Your task to perform on an android device: Go to privacy settings Image 0: 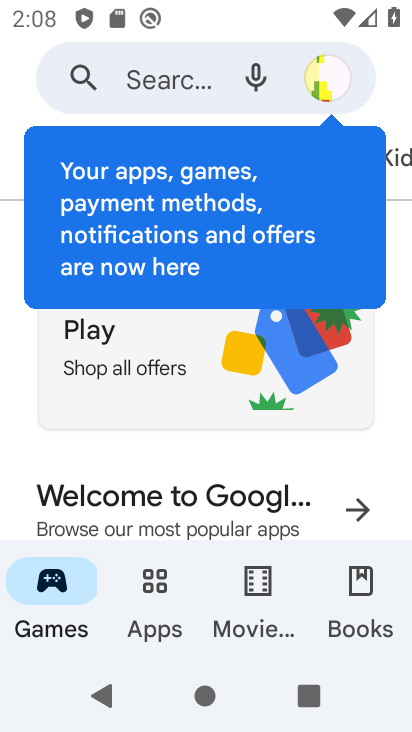
Step 0: press back button
Your task to perform on an android device: Go to privacy settings Image 1: 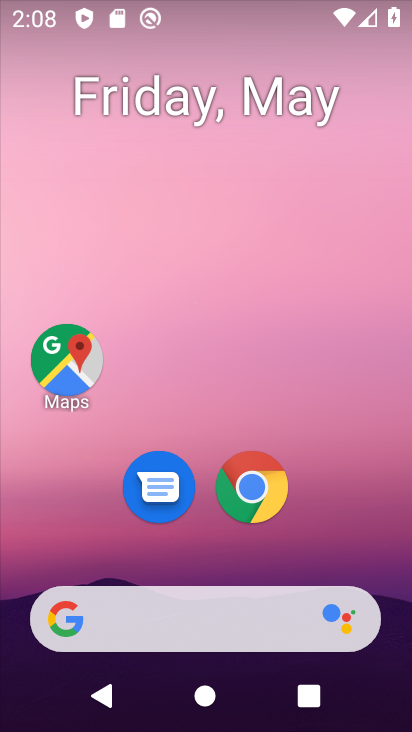
Step 1: drag from (176, 542) to (229, 8)
Your task to perform on an android device: Go to privacy settings Image 2: 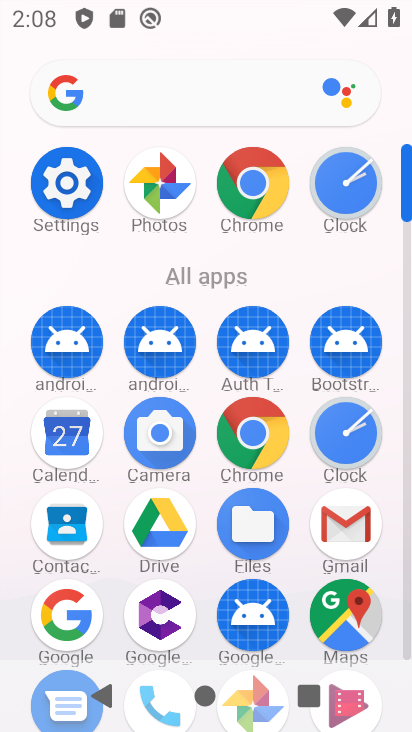
Step 2: click (74, 186)
Your task to perform on an android device: Go to privacy settings Image 3: 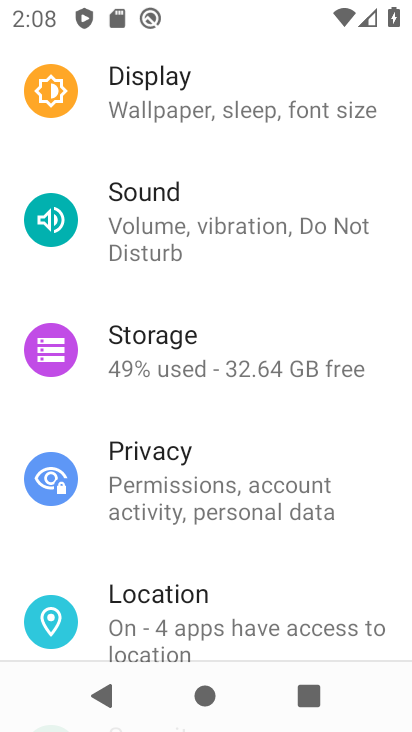
Step 3: click (199, 480)
Your task to perform on an android device: Go to privacy settings Image 4: 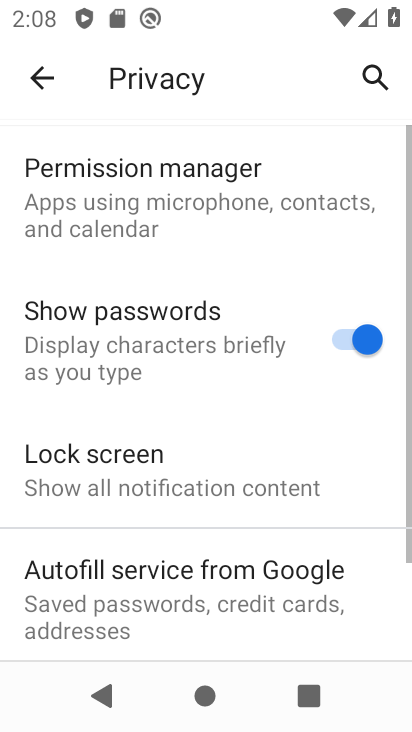
Step 4: task complete